Your task to perform on an android device: Go to ESPN.com Image 0: 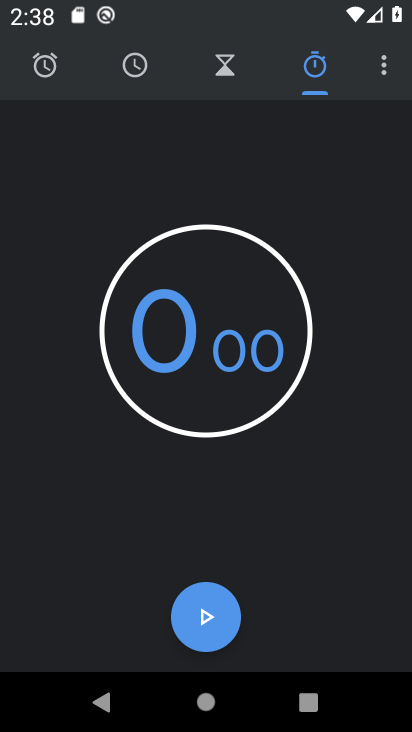
Step 0: press home button
Your task to perform on an android device: Go to ESPN.com Image 1: 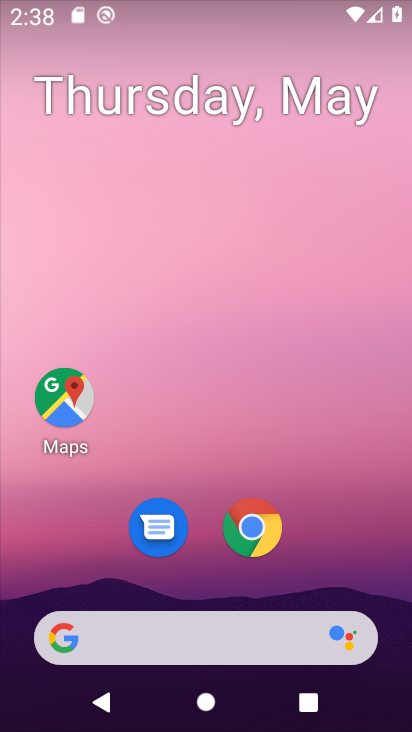
Step 1: drag from (316, 575) to (304, 93)
Your task to perform on an android device: Go to ESPN.com Image 2: 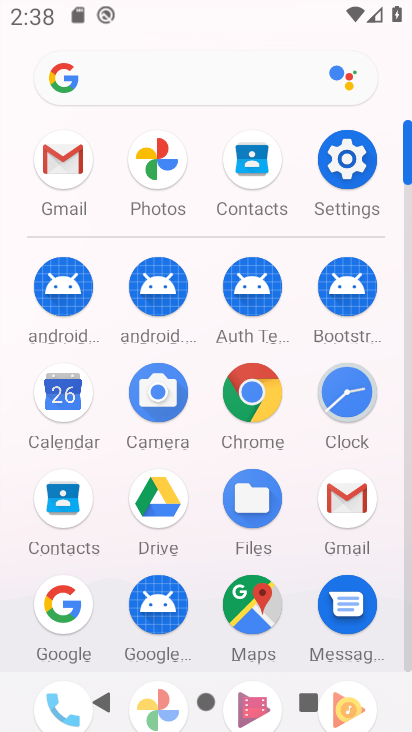
Step 2: click (271, 397)
Your task to perform on an android device: Go to ESPN.com Image 3: 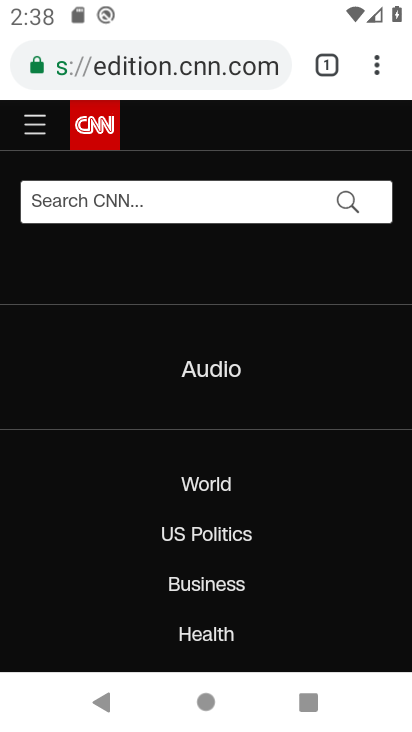
Step 3: click (178, 74)
Your task to perform on an android device: Go to ESPN.com Image 4: 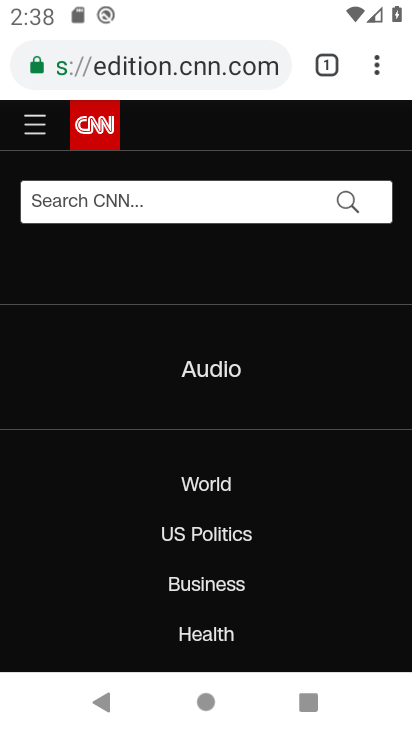
Step 4: click (178, 74)
Your task to perform on an android device: Go to ESPN.com Image 5: 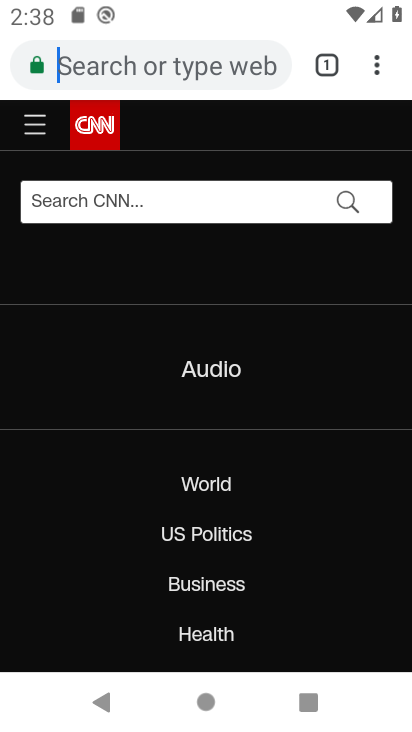
Step 5: click (178, 74)
Your task to perform on an android device: Go to ESPN.com Image 6: 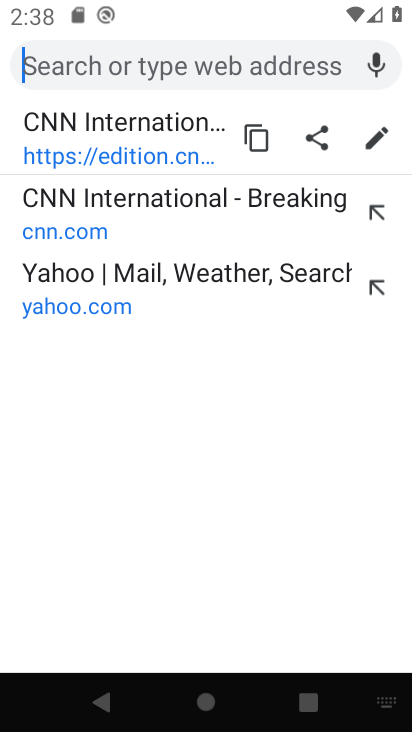
Step 6: click (178, 74)
Your task to perform on an android device: Go to ESPN.com Image 7: 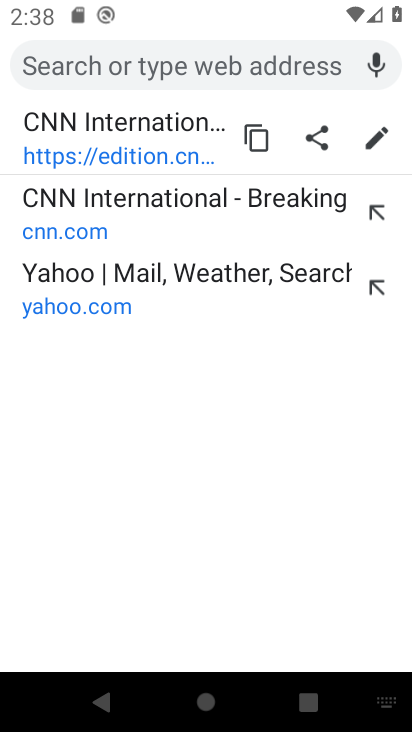
Step 7: click (178, 74)
Your task to perform on an android device: Go to ESPN.com Image 8: 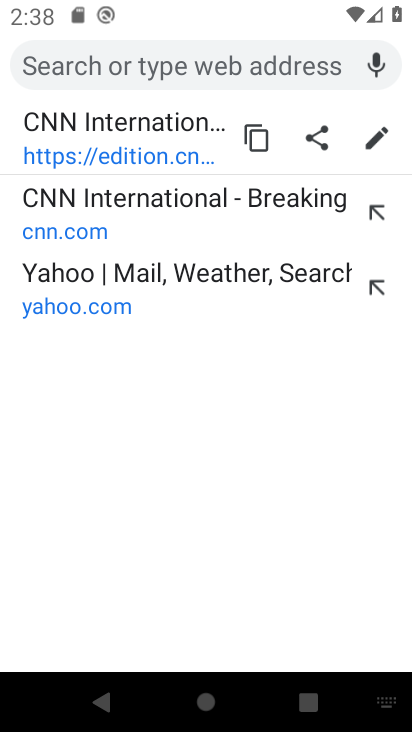
Step 8: click (178, 74)
Your task to perform on an android device: Go to ESPN.com Image 9: 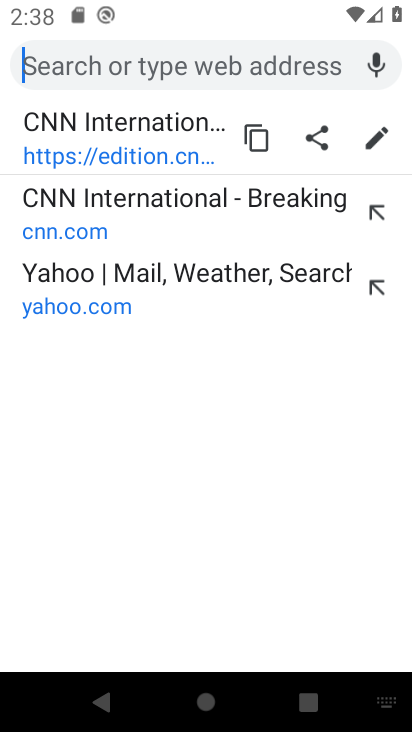
Step 9: click (178, 74)
Your task to perform on an android device: Go to ESPN.com Image 10: 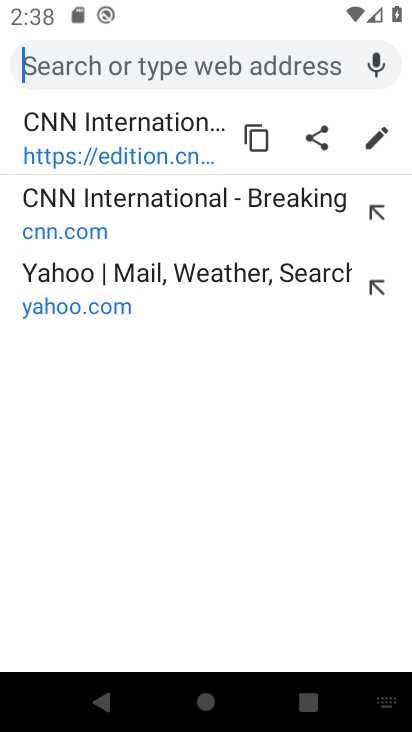
Step 10: click (178, 74)
Your task to perform on an android device: Go to ESPN.com Image 11: 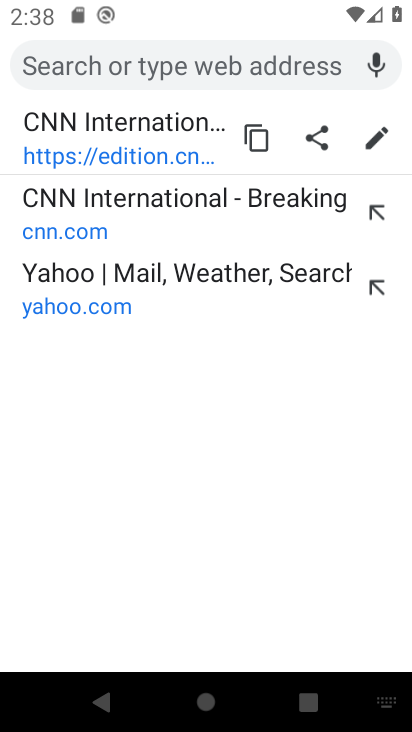
Step 11: type "ESPN.com"
Your task to perform on an android device: Go to ESPN.com Image 12: 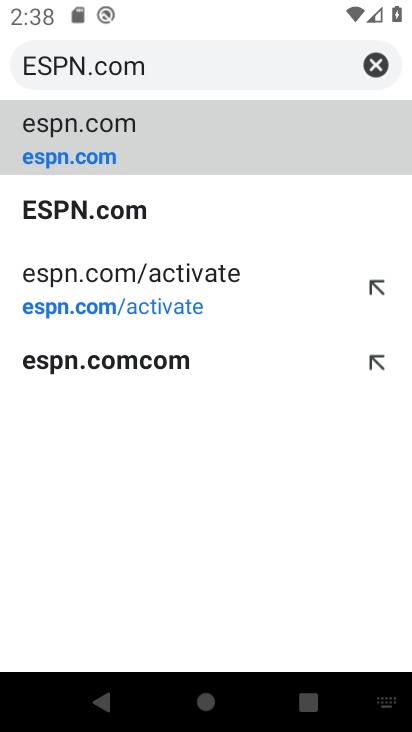
Step 12: click (233, 141)
Your task to perform on an android device: Go to ESPN.com Image 13: 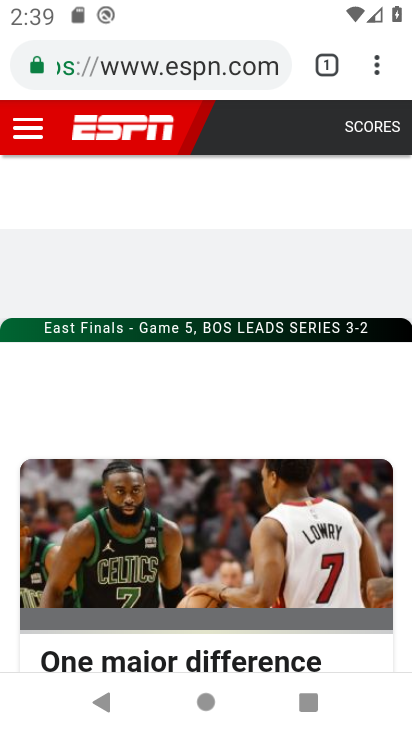
Step 13: task complete